Your task to perform on an android device: turn off wifi Image 0: 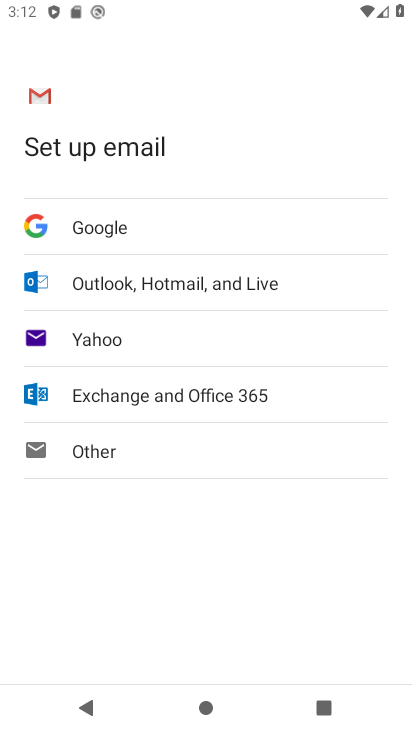
Step 0: press back button
Your task to perform on an android device: turn off wifi Image 1: 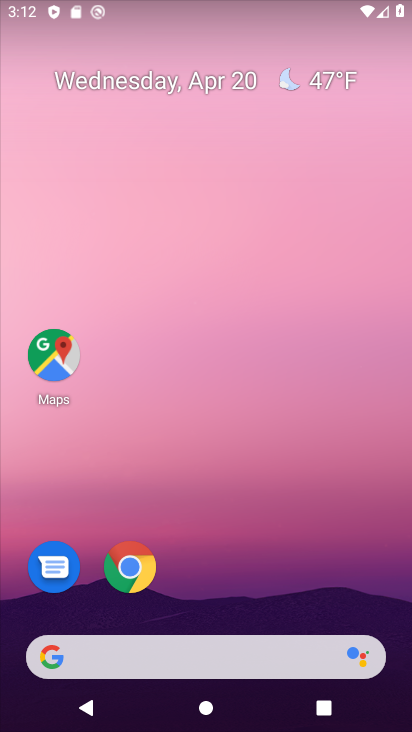
Step 1: drag from (249, 556) to (149, 14)
Your task to perform on an android device: turn off wifi Image 2: 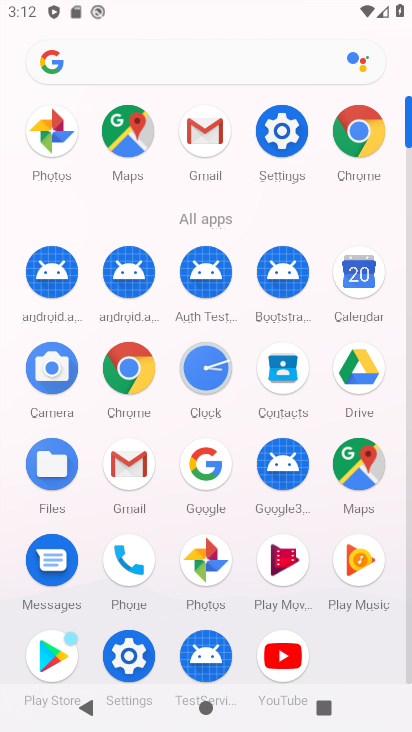
Step 2: click (279, 127)
Your task to perform on an android device: turn off wifi Image 3: 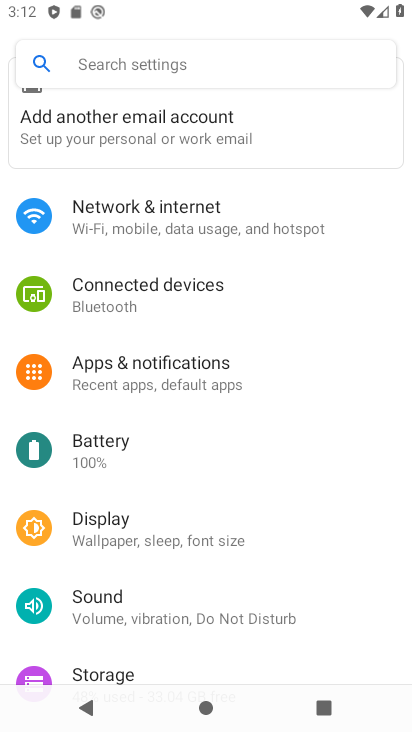
Step 3: click (216, 195)
Your task to perform on an android device: turn off wifi Image 4: 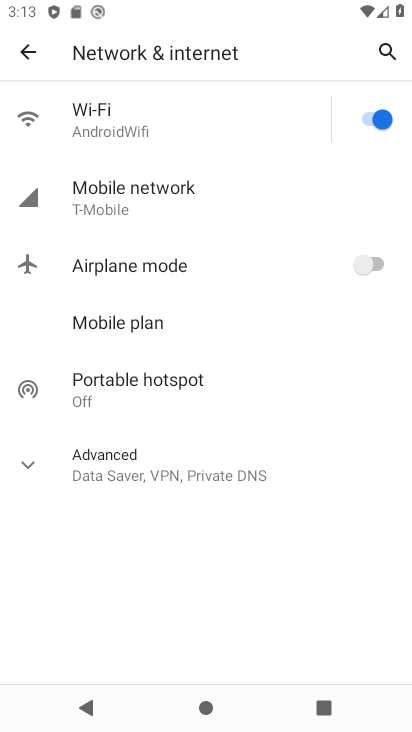
Step 4: click (365, 122)
Your task to perform on an android device: turn off wifi Image 5: 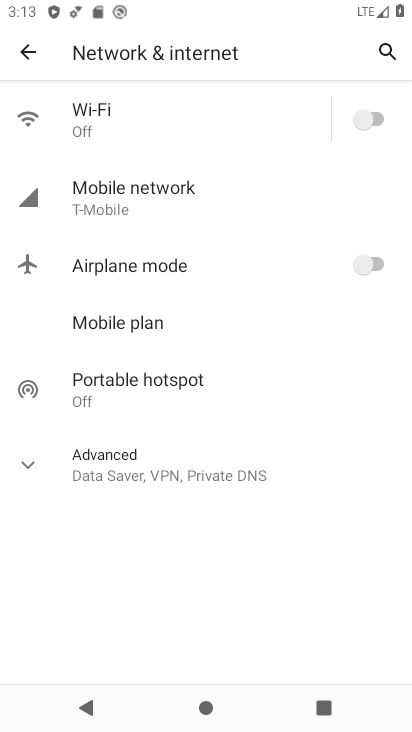
Step 5: task complete